Your task to perform on an android device: toggle airplane mode Image 0: 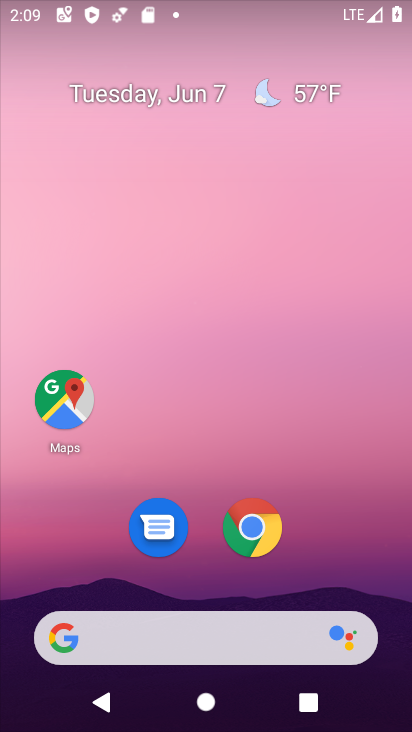
Step 0: drag from (353, 547) to (274, 315)
Your task to perform on an android device: toggle airplane mode Image 1: 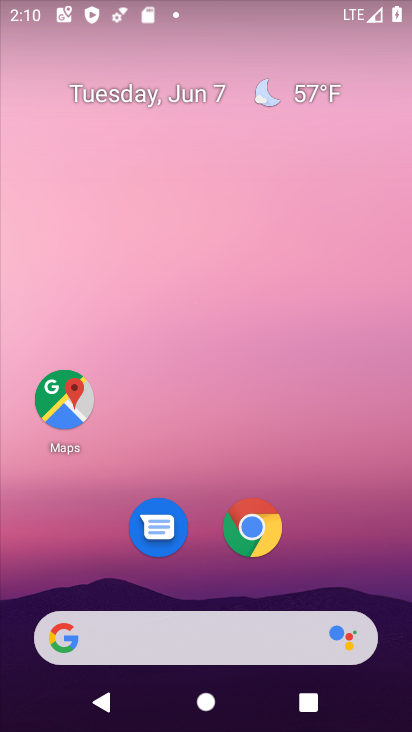
Step 1: drag from (347, 593) to (230, 183)
Your task to perform on an android device: toggle airplane mode Image 2: 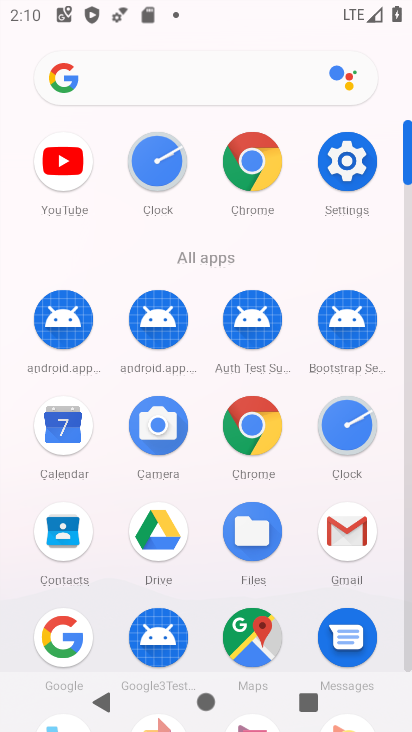
Step 2: click (363, 180)
Your task to perform on an android device: toggle airplane mode Image 3: 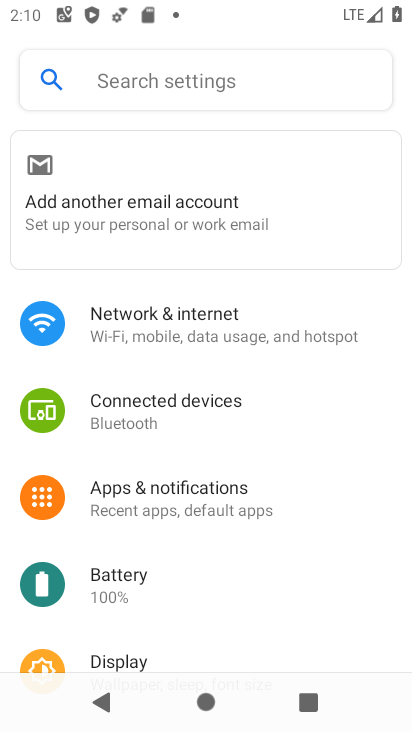
Step 3: click (269, 320)
Your task to perform on an android device: toggle airplane mode Image 4: 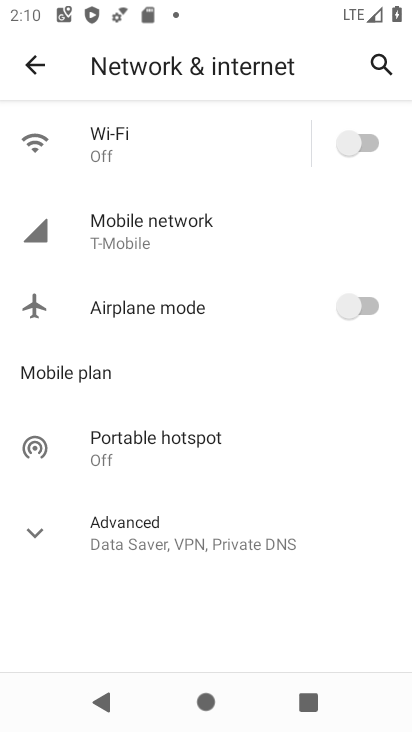
Step 4: click (344, 312)
Your task to perform on an android device: toggle airplane mode Image 5: 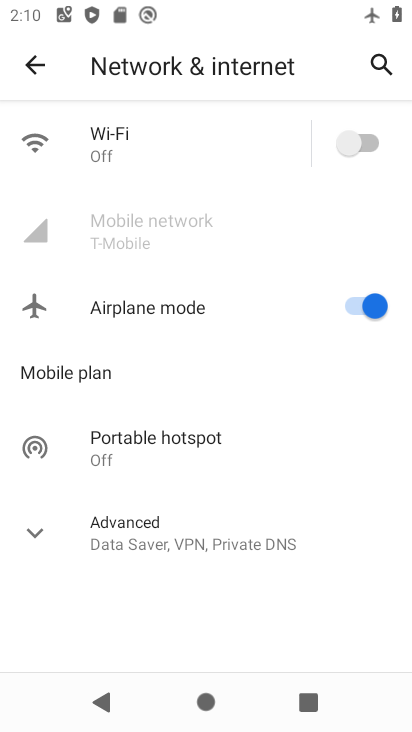
Step 5: task complete